Your task to perform on an android device: toggle wifi Image 0: 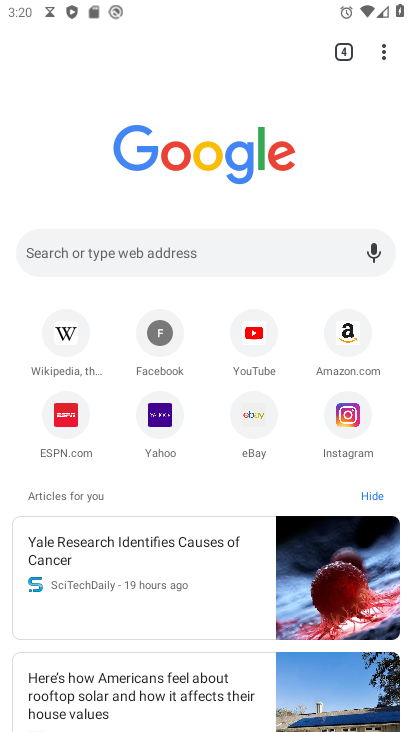
Step 0: press home button
Your task to perform on an android device: toggle wifi Image 1: 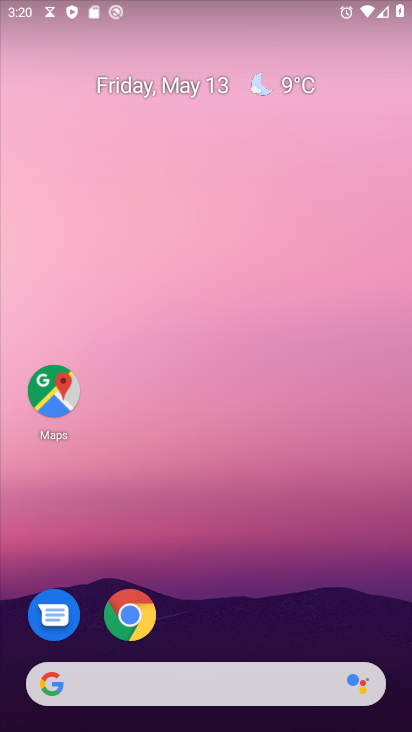
Step 1: drag from (203, 727) to (208, 251)
Your task to perform on an android device: toggle wifi Image 2: 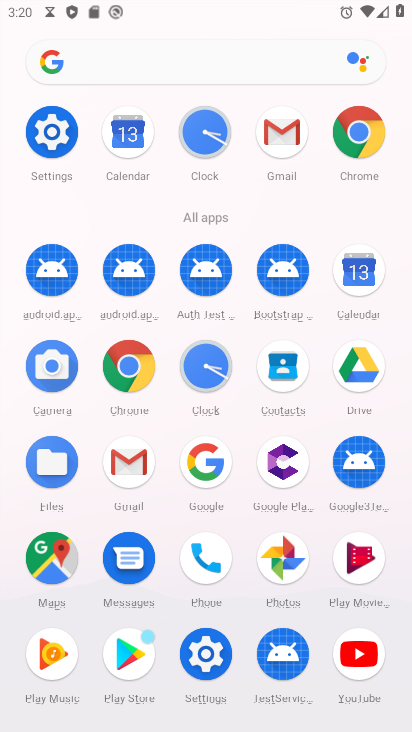
Step 2: click (51, 128)
Your task to perform on an android device: toggle wifi Image 3: 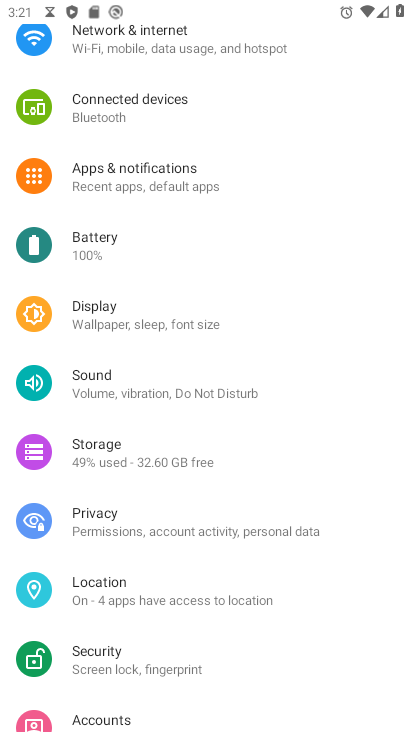
Step 3: drag from (160, 120) to (170, 454)
Your task to perform on an android device: toggle wifi Image 4: 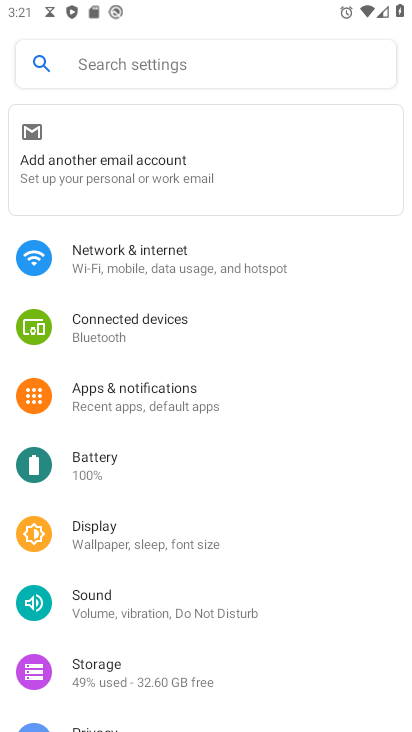
Step 4: click (163, 265)
Your task to perform on an android device: toggle wifi Image 5: 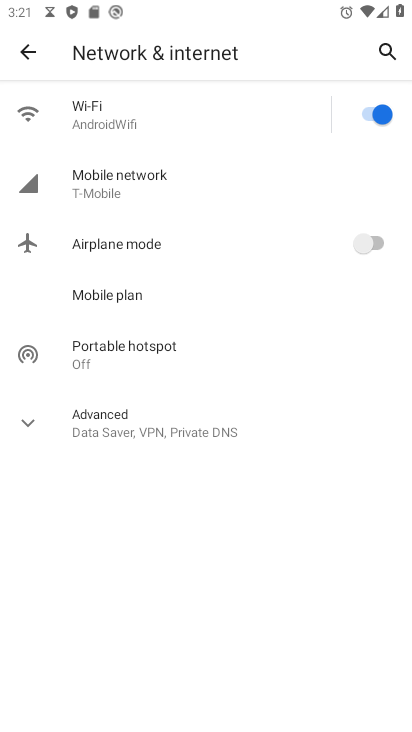
Step 5: click (366, 104)
Your task to perform on an android device: toggle wifi Image 6: 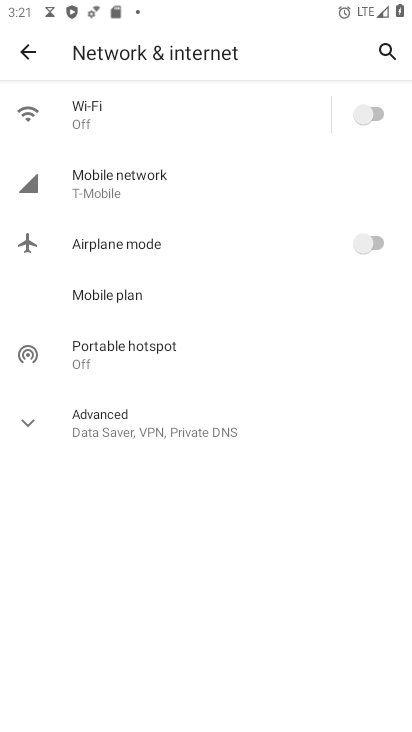
Step 6: task complete